Your task to perform on an android device: add a contact in the contacts app Image 0: 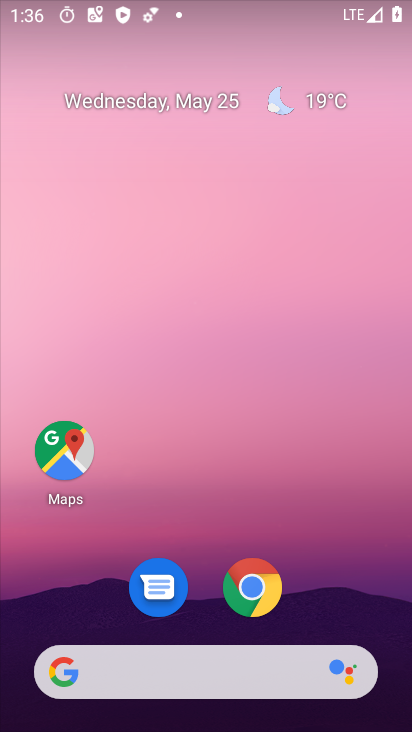
Step 0: drag from (218, 700) to (218, 215)
Your task to perform on an android device: add a contact in the contacts app Image 1: 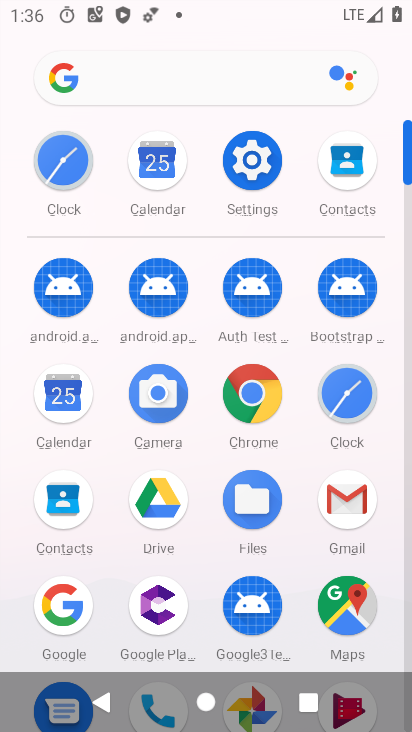
Step 1: click (71, 491)
Your task to perform on an android device: add a contact in the contacts app Image 2: 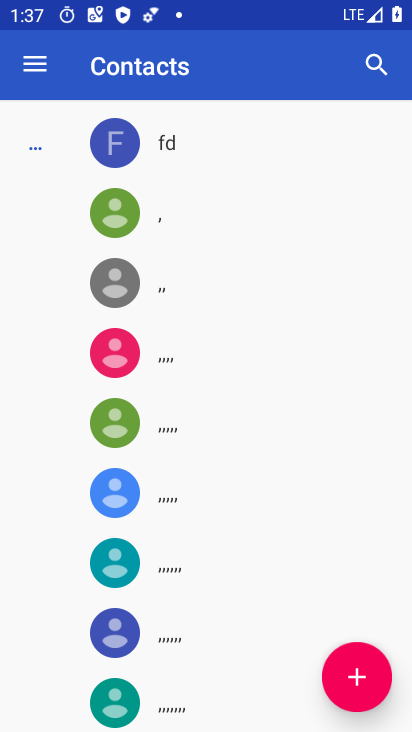
Step 2: click (354, 672)
Your task to perform on an android device: add a contact in the contacts app Image 3: 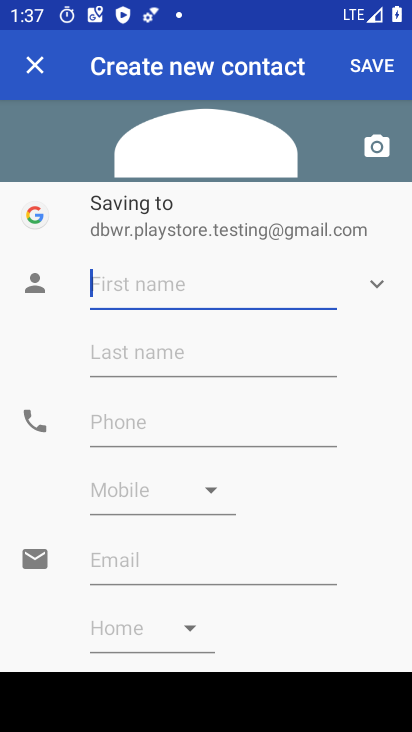
Step 3: type "visnu"
Your task to perform on an android device: add a contact in the contacts app Image 4: 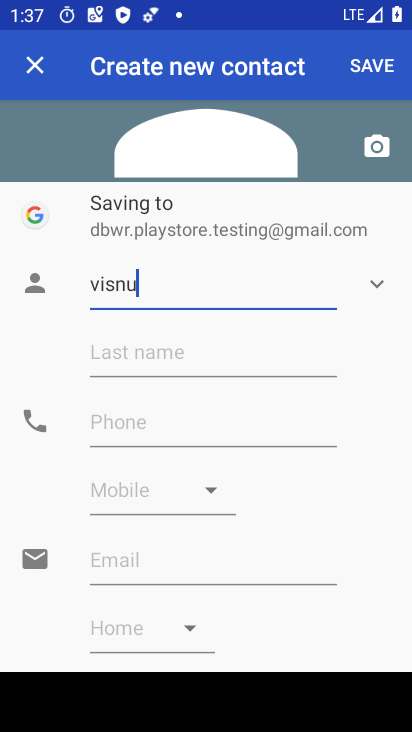
Step 4: click (240, 405)
Your task to perform on an android device: add a contact in the contacts app Image 5: 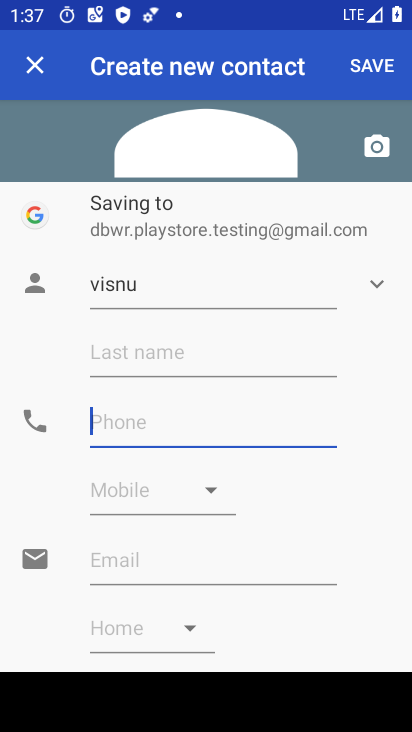
Step 5: type "88"
Your task to perform on an android device: add a contact in the contacts app Image 6: 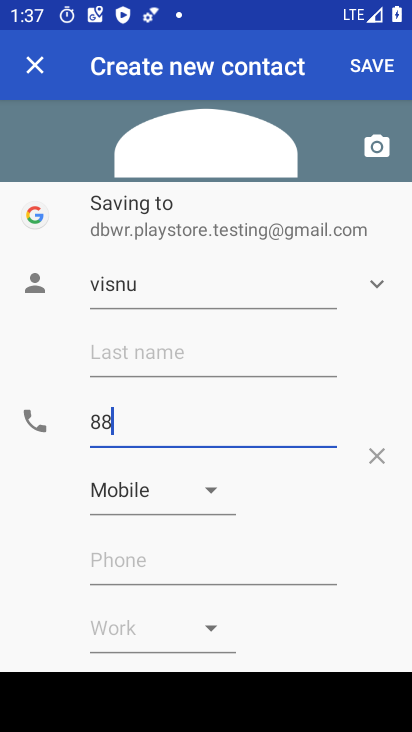
Step 6: click (370, 64)
Your task to perform on an android device: add a contact in the contacts app Image 7: 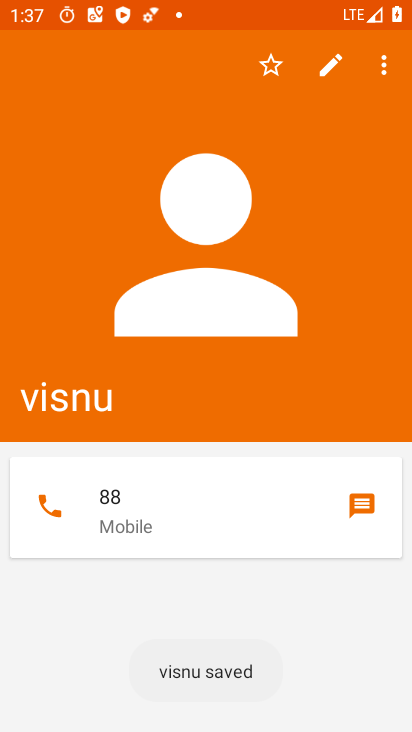
Step 7: task complete